Your task to perform on an android device: What's the weather today? Image 0: 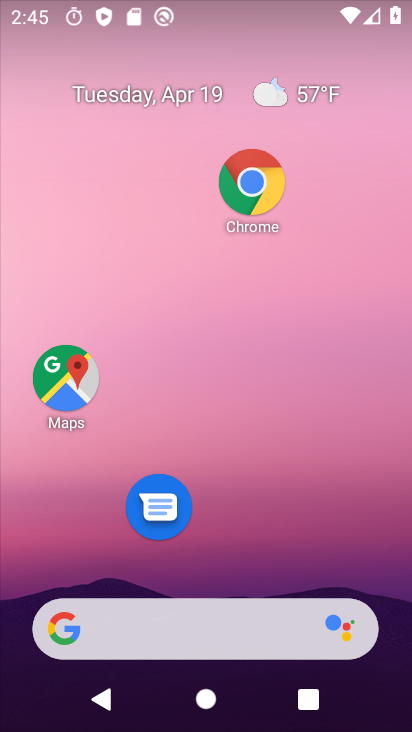
Step 0: drag from (258, 596) to (309, 61)
Your task to perform on an android device: What's the weather today? Image 1: 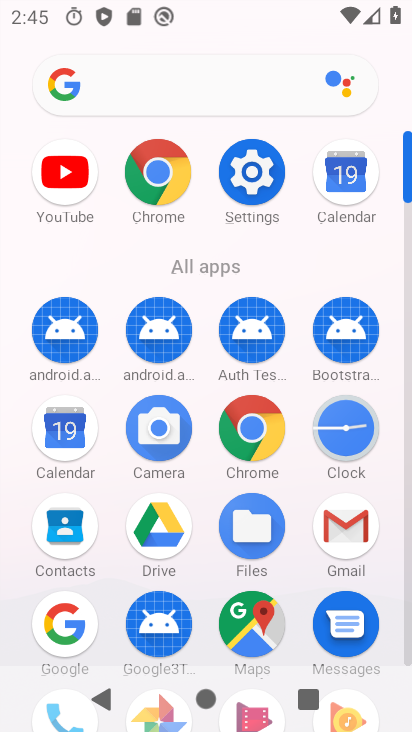
Step 1: click (76, 616)
Your task to perform on an android device: What's the weather today? Image 2: 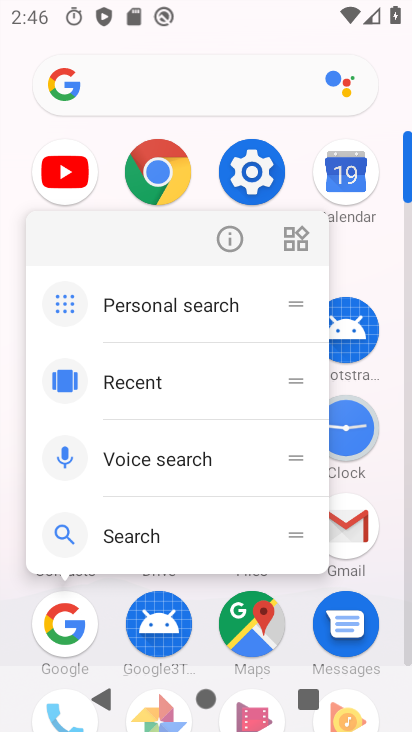
Step 2: click (59, 626)
Your task to perform on an android device: What's the weather today? Image 3: 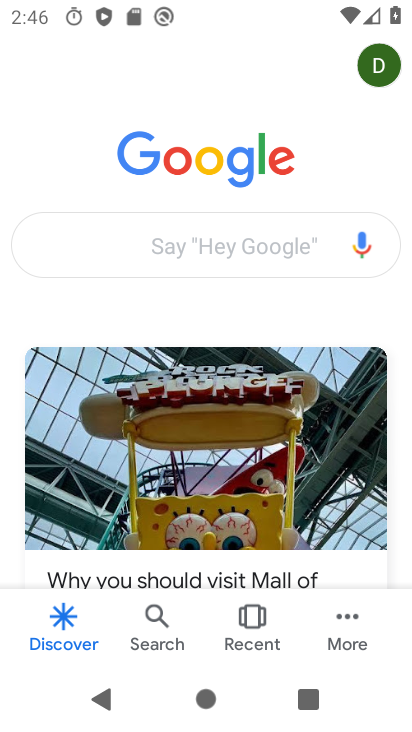
Step 3: click (199, 254)
Your task to perform on an android device: What's the weather today? Image 4: 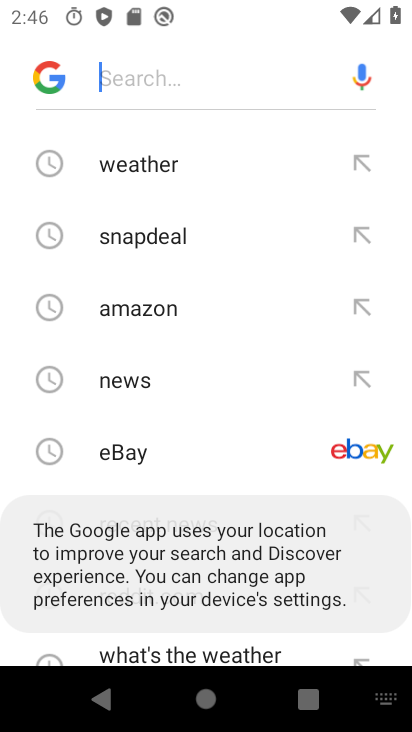
Step 4: click (184, 182)
Your task to perform on an android device: What's the weather today? Image 5: 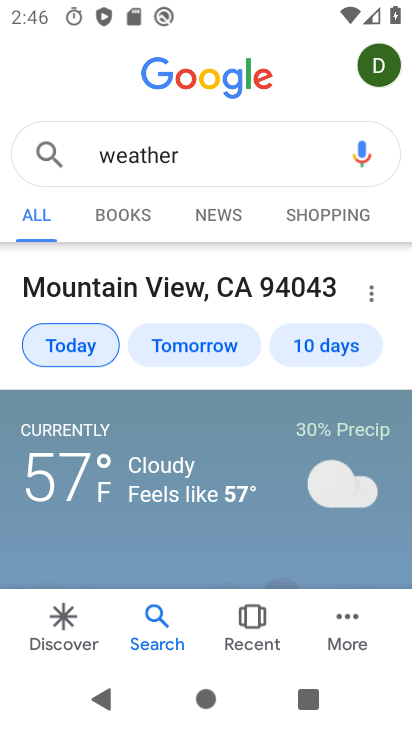
Step 5: task complete